Your task to perform on an android device: turn notification dots off Image 0: 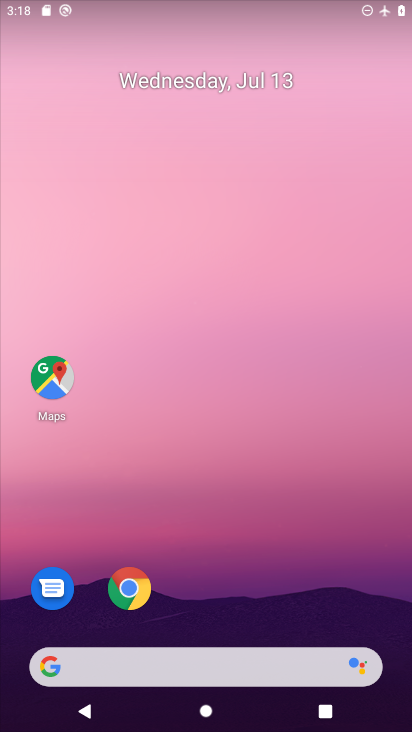
Step 0: drag from (185, 612) to (160, 105)
Your task to perform on an android device: turn notification dots off Image 1: 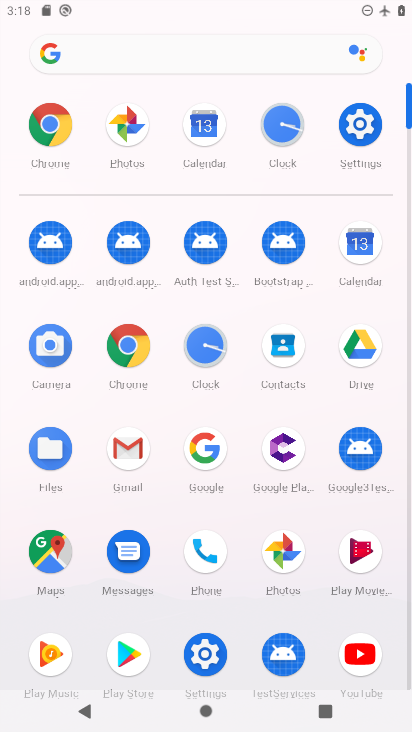
Step 1: click (358, 127)
Your task to perform on an android device: turn notification dots off Image 2: 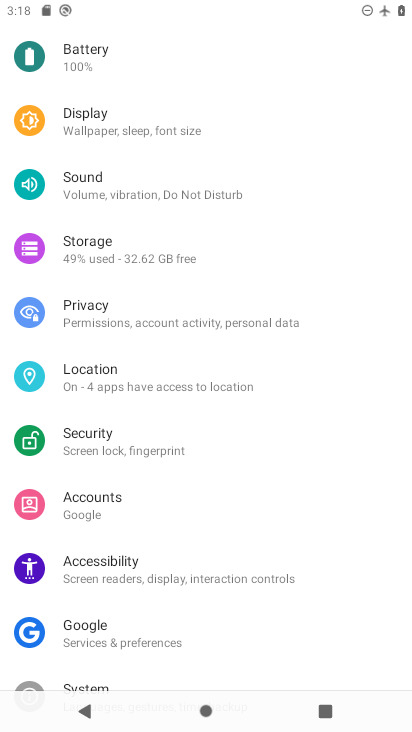
Step 2: drag from (164, 164) to (108, 548)
Your task to perform on an android device: turn notification dots off Image 3: 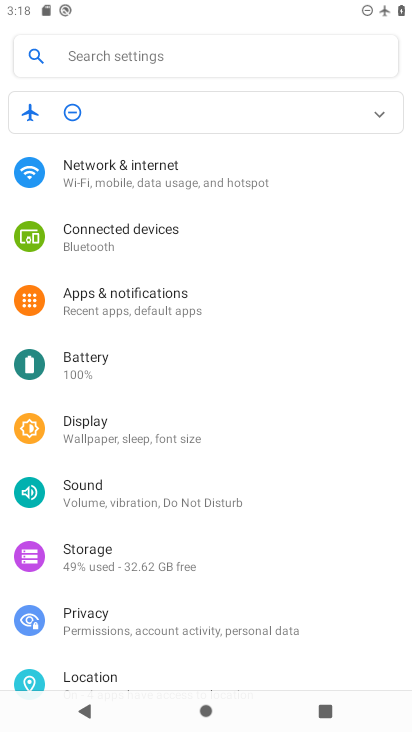
Step 3: click (123, 294)
Your task to perform on an android device: turn notification dots off Image 4: 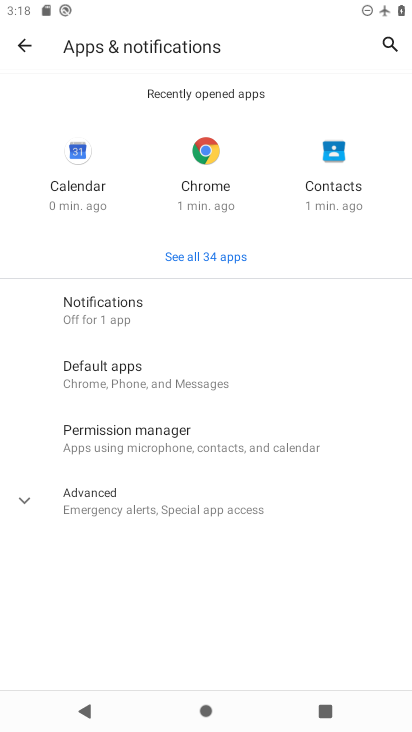
Step 4: click (122, 292)
Your task to perform on an android device: turn notification dots off Image 5: 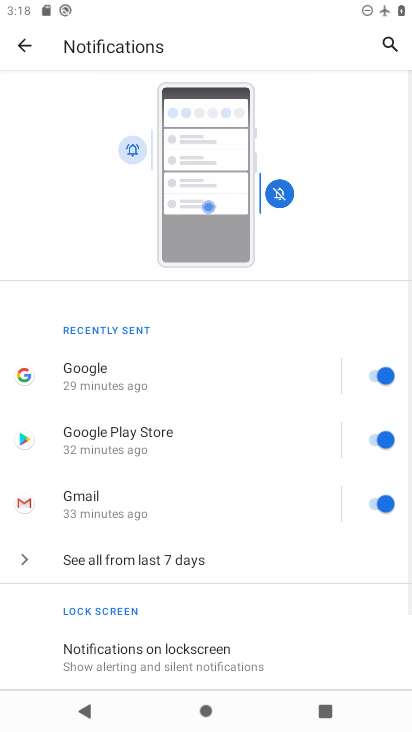
Step 5: drag from (154, 613) to (151, 90)
Your task to perform on an android device: turn notification dots off Image 6: 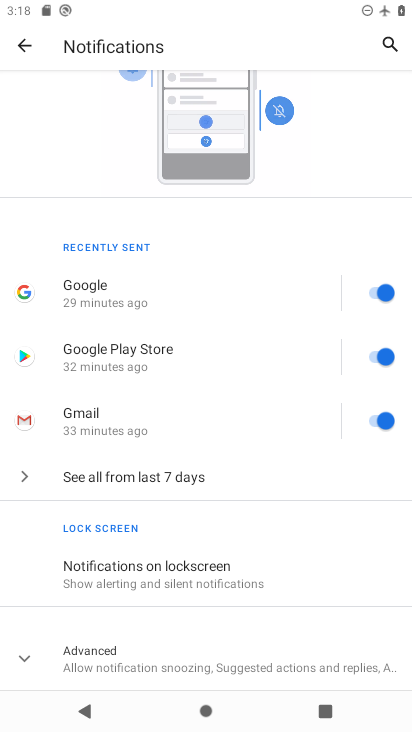
Step 6: click (166, 664)
Your task to perform on an android device: turn notification dots off Image 7: 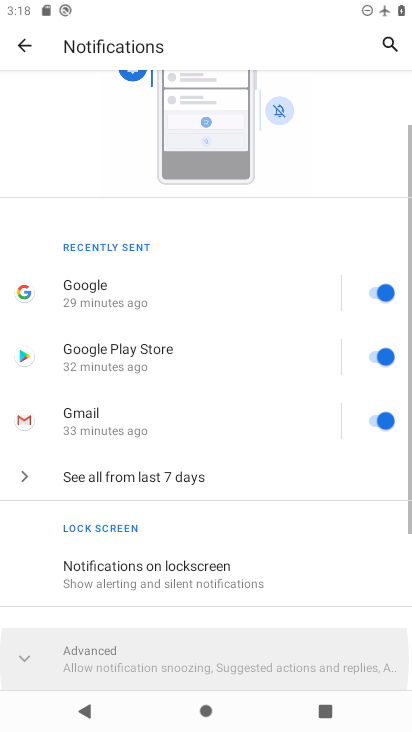
Step 7: task complete